Your task to perform on an android device: Open sound settings Image 0: 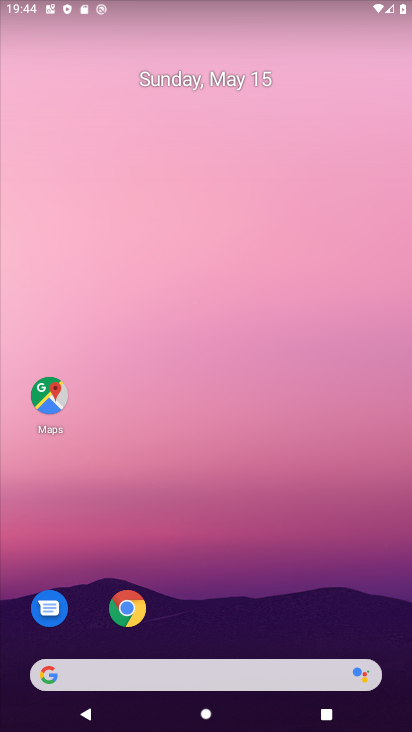
Step 0: drag from (238, 608) to (288, 322)
Your task to perform on an android device: Open sound settings Image 1: 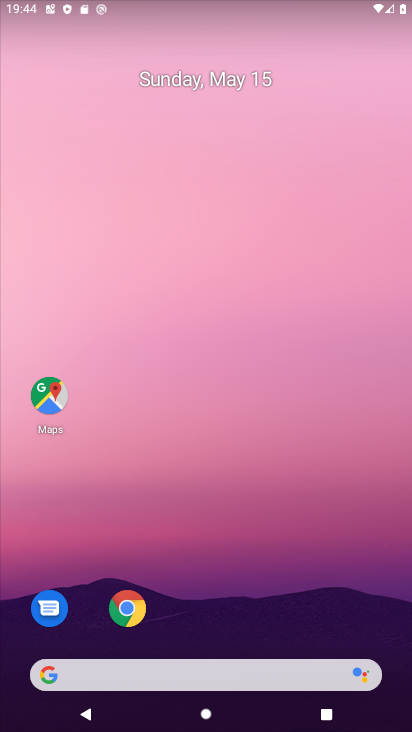
Step 1: drag from (259, 625) to (308, 264)
Your task to perform on an android device: Open sound settings Image 2: 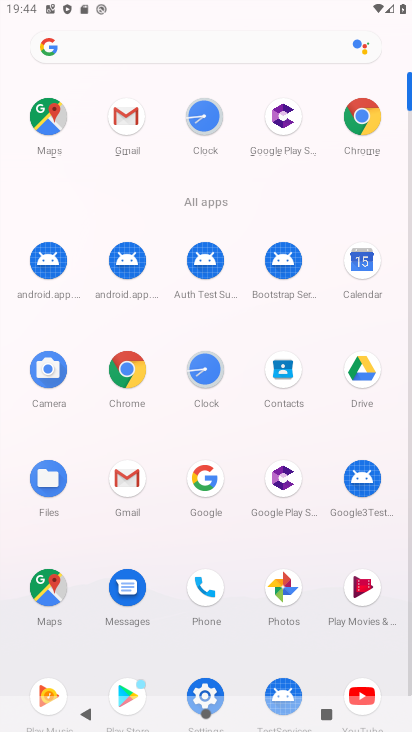
Step 2: click (207, 685)
Your task to perform on an android device: Open sound settings Image 3: 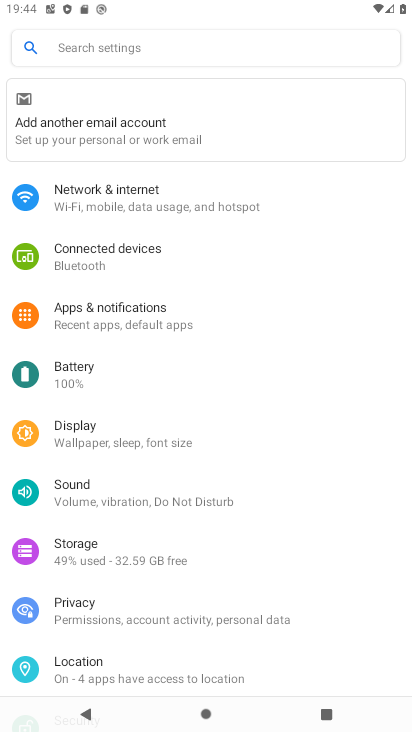
Step 3: click (136, 501)
Your task to perform on an android device: Open sound settings Image 4: 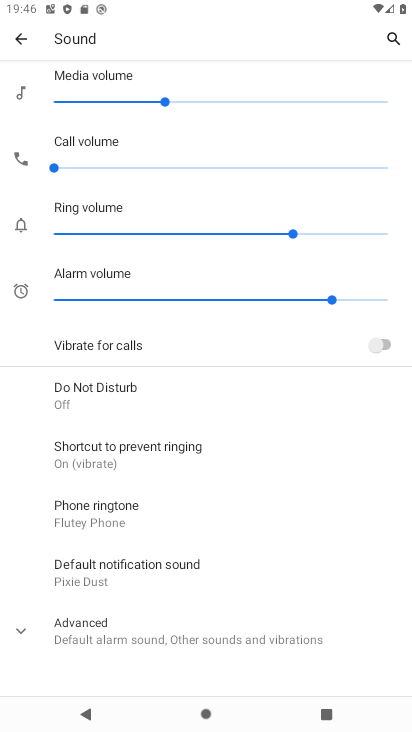
Step 4: task complete